Your task to perform on an android device: Go to wifi settings Image 0: 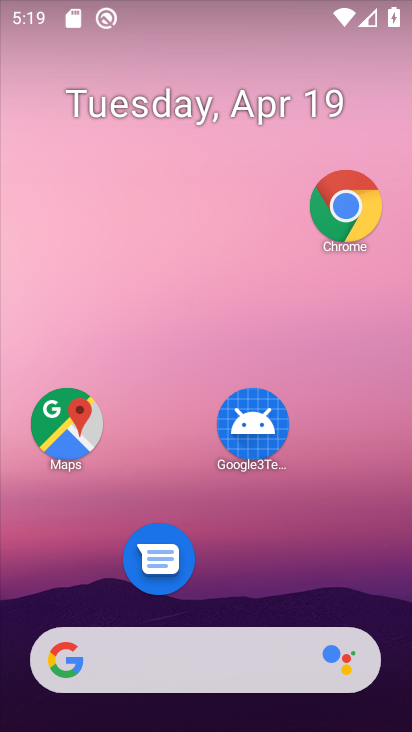
Step 0: drag from (277, 661) to (282, 273)
Your task to perform on an android device: Go to wifi settings Image 1: 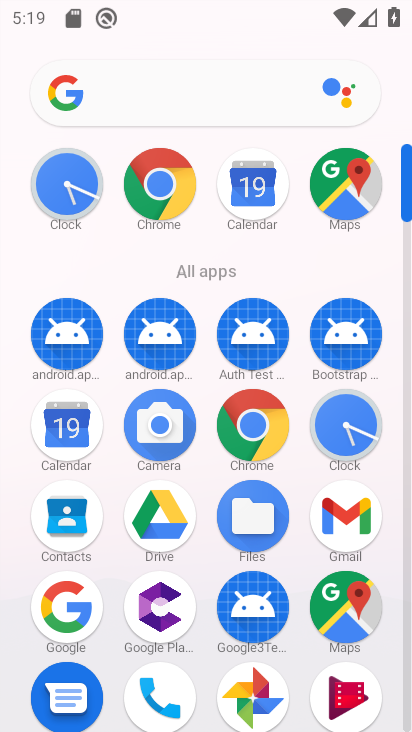
Step 1: drag from (244, 675) to (284, 309)
Your task to perform on an android device: Go to wifi settings Image 2: 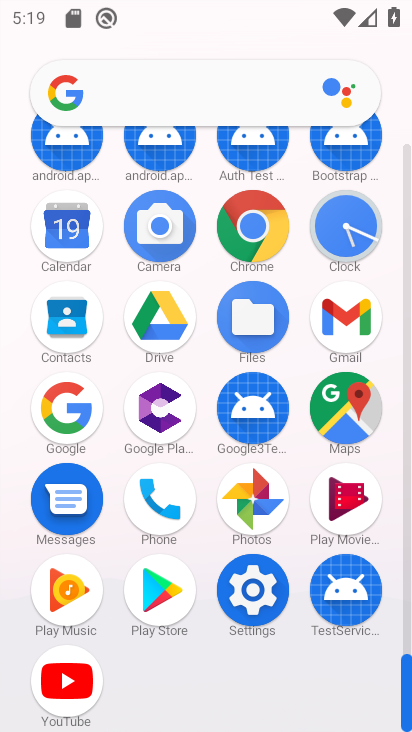
Step 2: click (261, 596)
Your task to perform on an android device: Go to wifi settings Image 3: 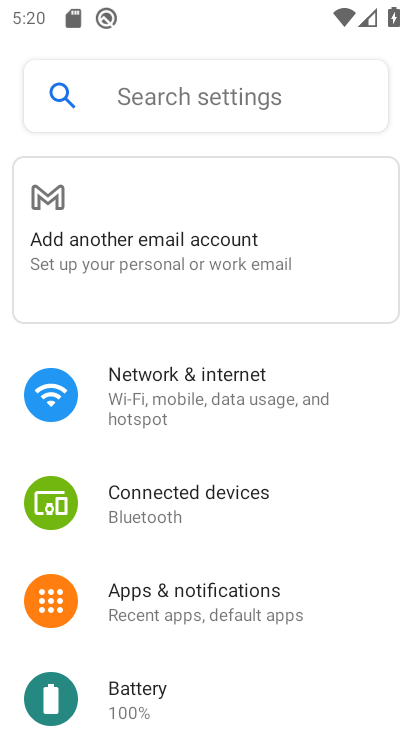
Step 3: drag from (245, 694) to (210, 353)
Your task to perform on an android device: Go to wifi settings Image 4: 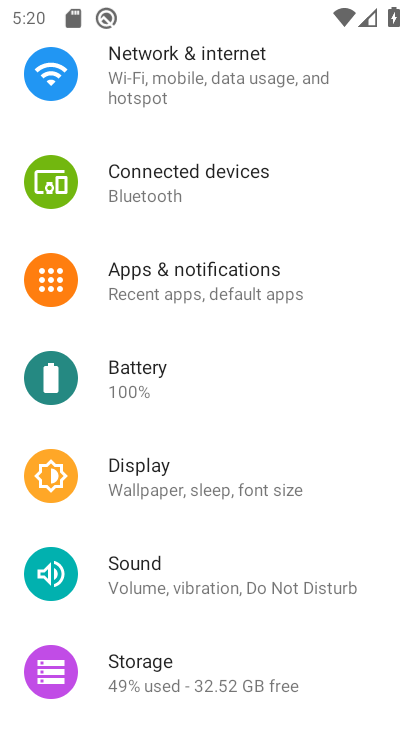
Step 4: drag from (203, 616) to (215, 377)
Your task to perform on an android device: Go to wifi settings Image 5: 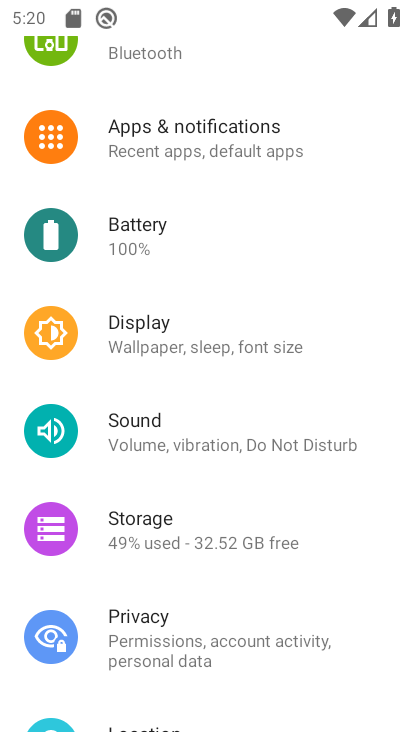
Step 5: drag from (220, 638) to (201, 475)
Your task to perform on an android device: Go to wifi settings Image 6: 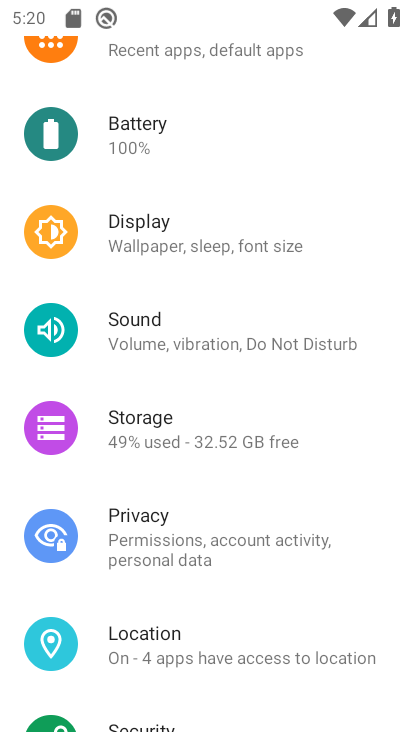
Step 6: drag from (215, 643) to (198, 326)
Your task to perform on an android device: Go to wifi settings Image 7: 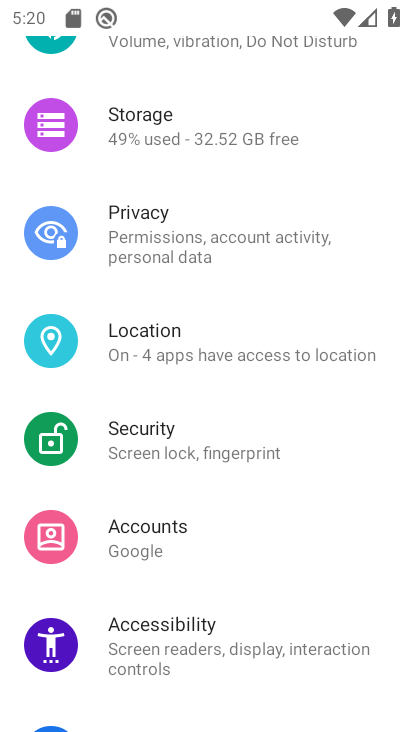
Step 7: drag from (211, 217) to (223, 629)
Your task to perform on an android device: Go to wifi settings Image 8: 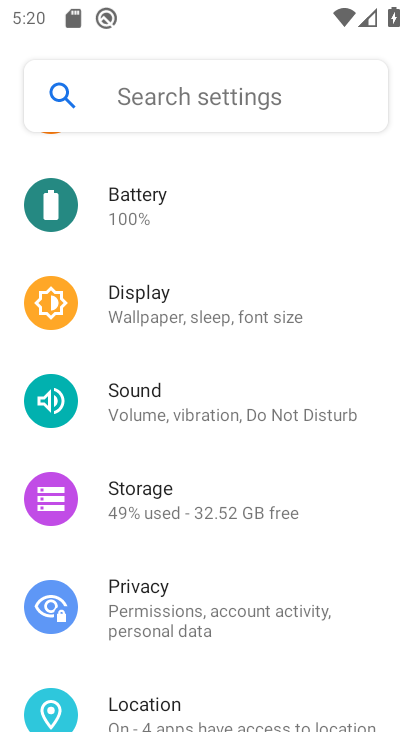
Step 8: drag from (229, 186) to (206, 476)
Your task to perform on an android device: Go to wifi settings Image 9: 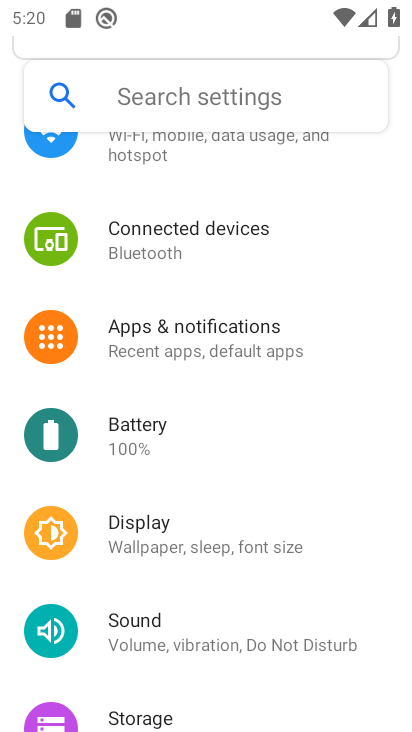
Step 9: drag from (211, 178) to (184, 558)
Your task to perform on an android device: Go to wifi settings Image 10: 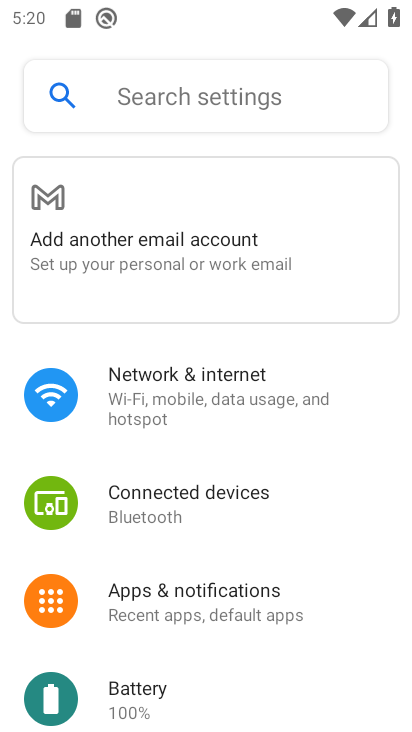
Step 10: click (170, 400)
Your task to perform on an android device: Go to wifi settings Image 11: 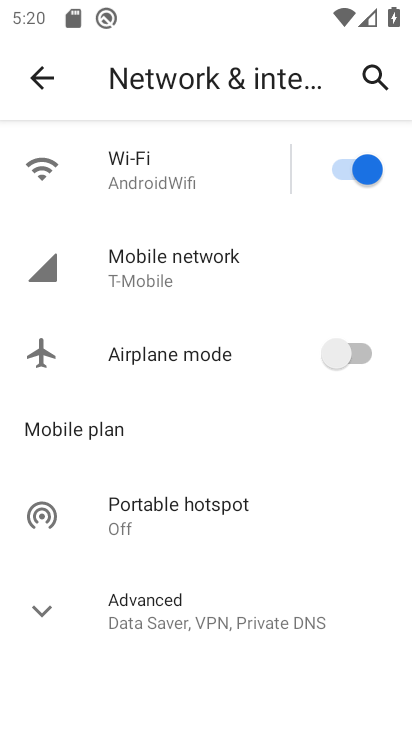
Step 11: click (172, 190)
Your task to perform on an android device: Go to wifi settings Image 12: 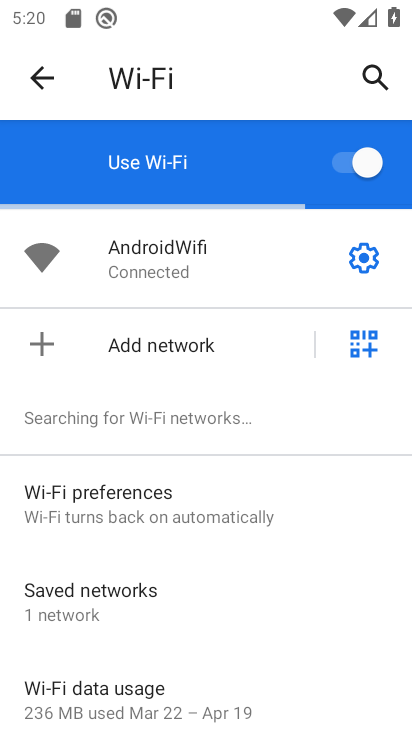
Step 12: task complete